Your task to perform on an android device: turn off picture-in-picture Image 0: 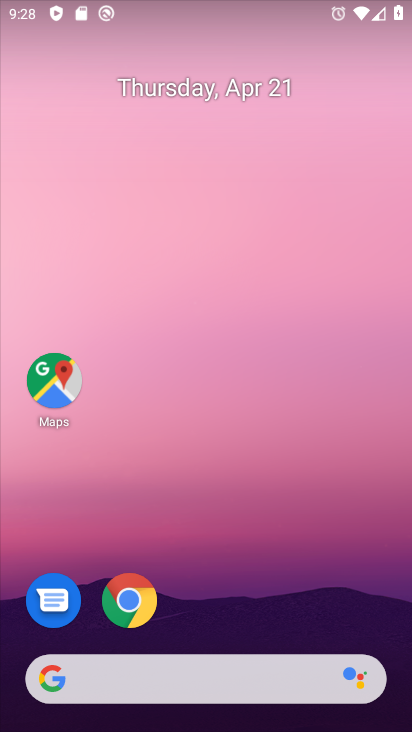
Step 0: click (132, 598)
Your task to perform on an android device: turn off picture-in-picture Image 1: 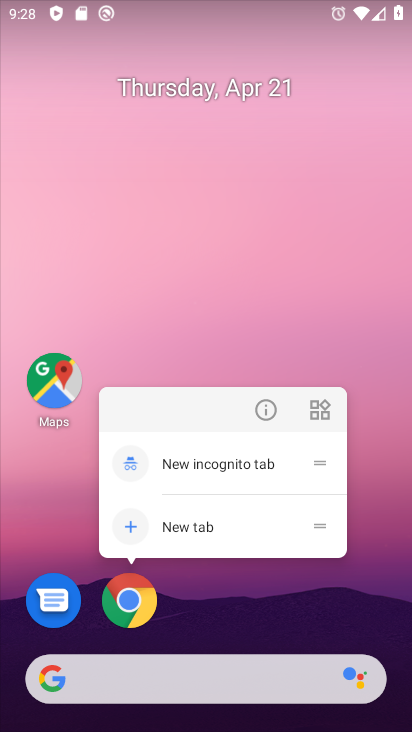
Step 1: click (263, 417)
Your task to perform on an android device: turn off picture-in-picture Image 2: 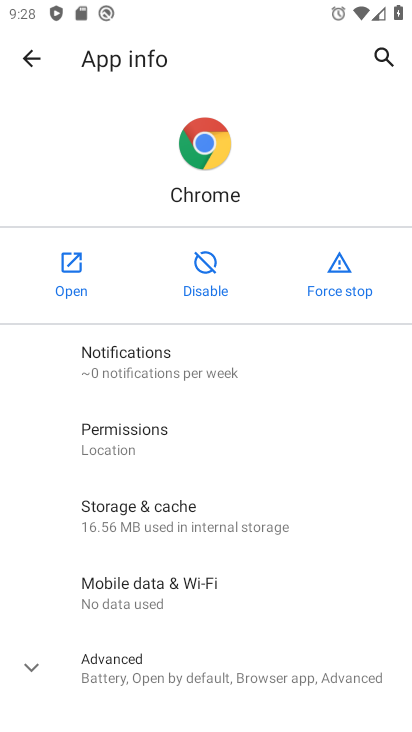
Step 2: click (81, 663)
Your task to perform on an android device: turn off picture-in-picture Image 3: 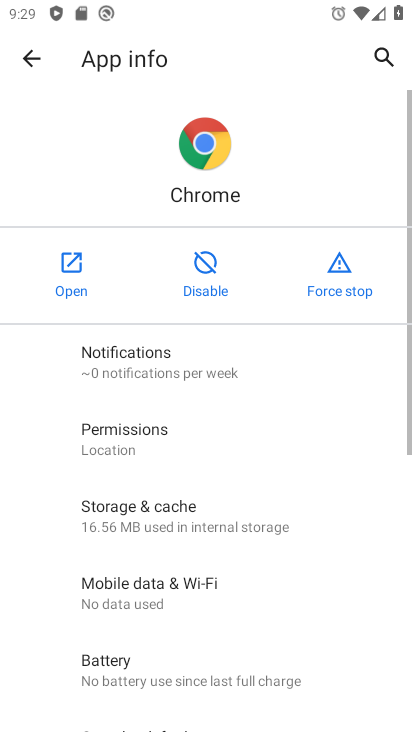
Step 3: drag from (237, 596) to (274, 16)
Your task to perform on an android device: turn off picture-in-picture Image 4: 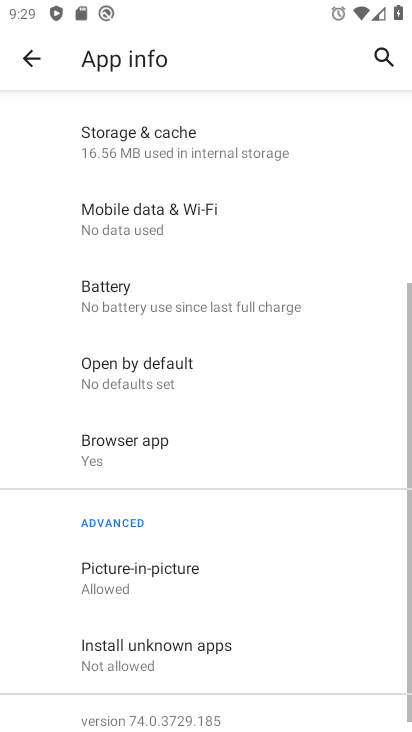
Step 4: click (142, 569)
Your task to perform on an android device: turn off picture-in-picture Image 5: 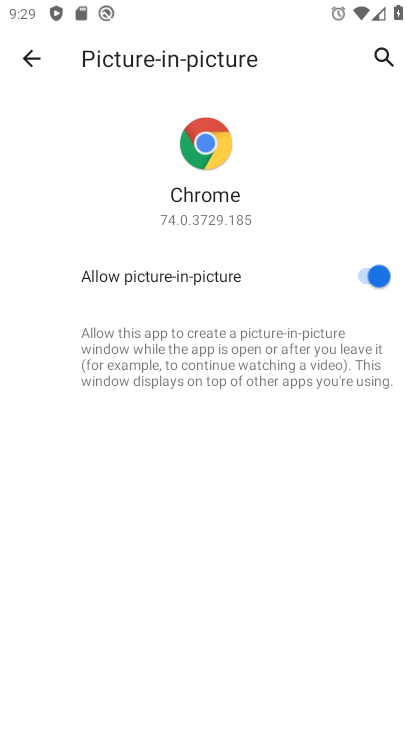
Step 5: click (364, 284)
Your task to perform on an android device: turn off picture-in-picture Image 6: 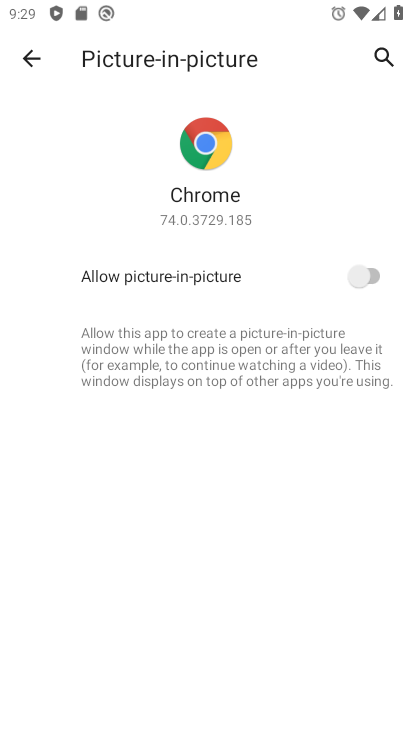
Step 6: task complete